Your task to perform on an android device: toggle sleep mode Image 0: 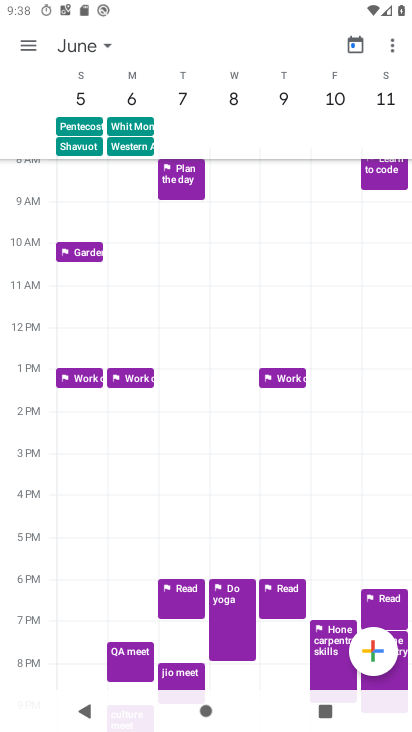
Step 0: press home button
Your task to perform on an android device: toggle sleep mode Image 1: 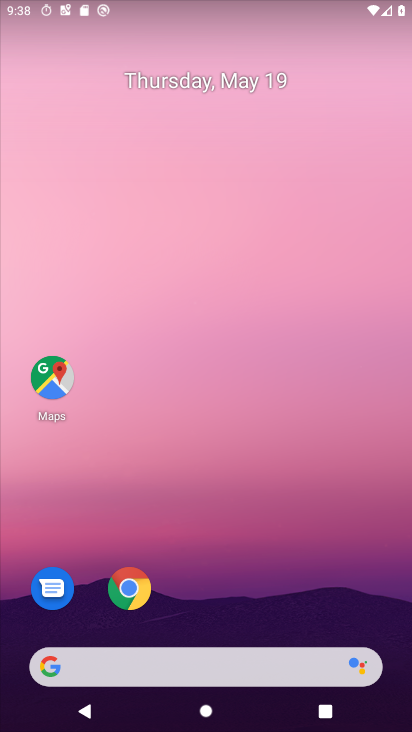
Step 1: drag from (170, 667) to (318, 53)
Your task to perform on an android device: toggle sleep mode Image 2: 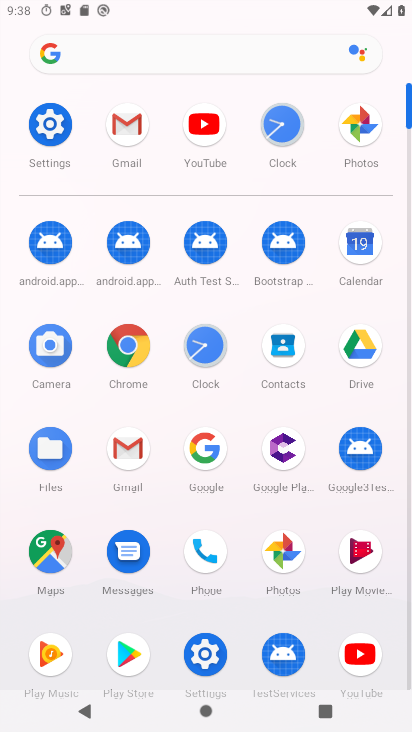
Step 2: click (46, 126)
Your task to perform on an android device: toggle sleep mode Image 3: 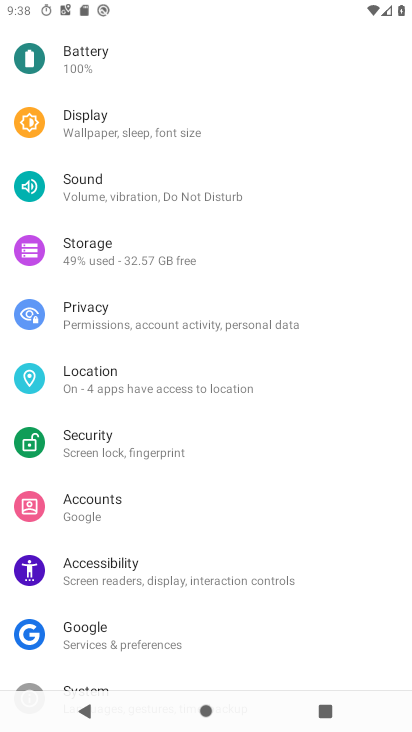
Step 3: click (127, 131)
Your task to perform on an android device: toggle sleep mode Image 4: 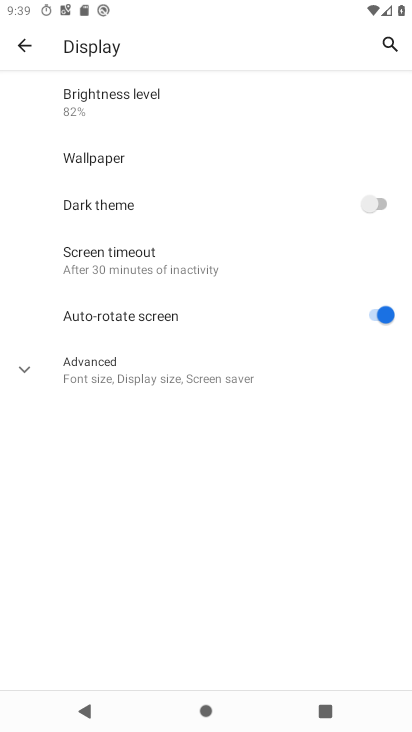
Step 4: task complete